Your task to perform on an android device: Search for hotels in Paris Image 0: 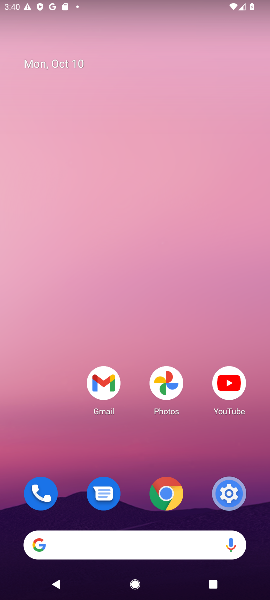
Step 0: click (94, 546)
Your task to perform on an android device: Search for hotels in Paris Image 1: 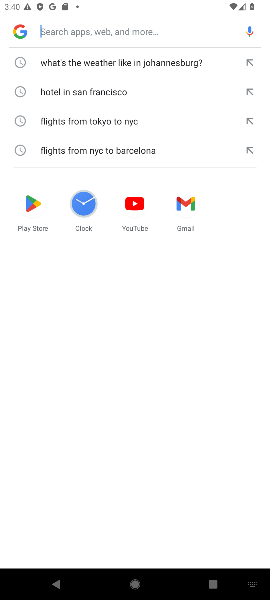
Step 1: type " hotels in Paris"
Your task to perform on an android device: Search for hotels in Paris Image 2: 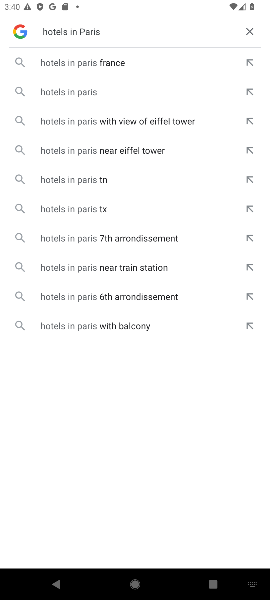
Step 2: click (117, 59)
Your task to perform on an android device: Search for hotels in Paris Image 3: 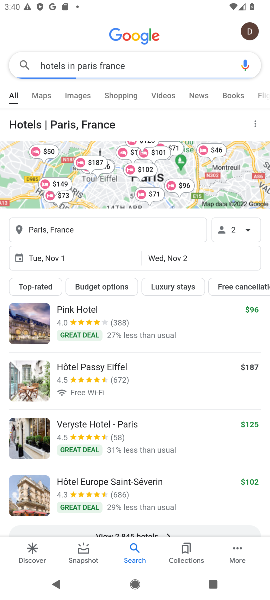
Step 3: task complete